Your task to perform on an android device: check the backup settings in the google photos Image 0: 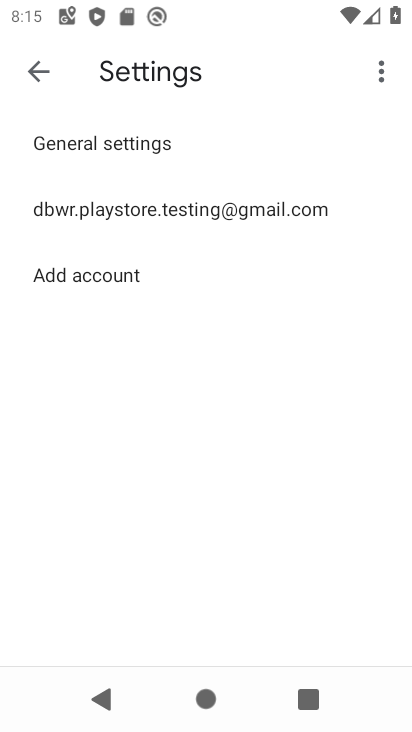
Step 0: press home button
Your task to perform on an android device: check the backup settings in the google photos Image 1: 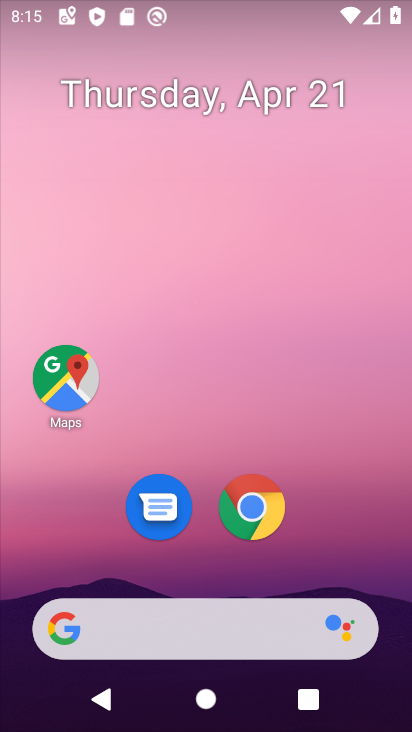
Step 1: drag from (319, 481) to (339, 127)
Your task to perform on an android device: check the backup settings in the google photos Image 2: 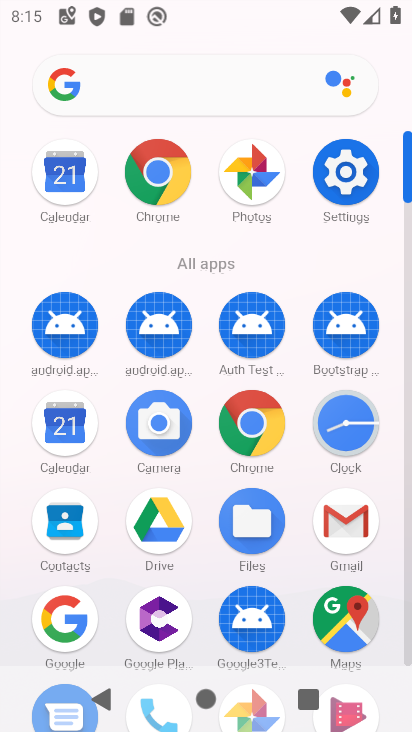
Step 2: drag from (197, 591) to (204, 185)
Your task to perform on an android device: check the backup settings in the google photos Image 3: 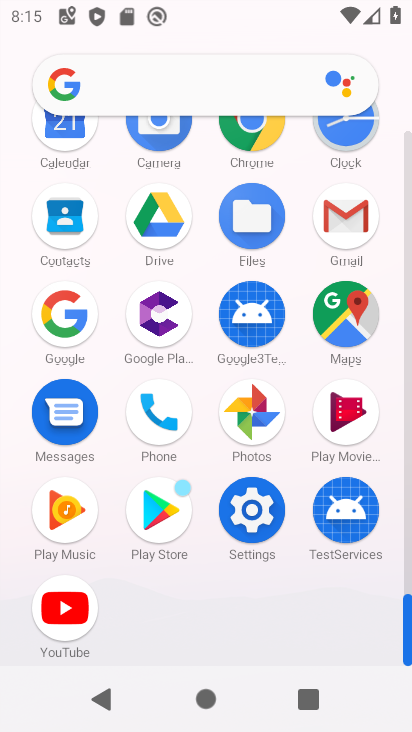
Step 3: click (241, 426)
Your task to perform on an android device: check the backup settings in the google photos Image 4: 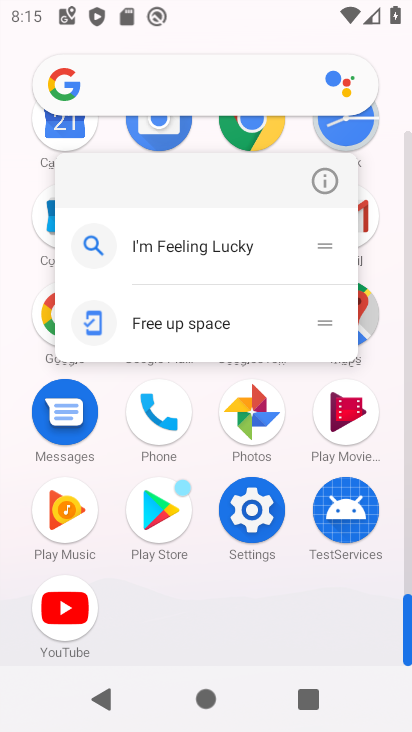
Step 4: click (255, 432)
Your task to perform on an android device: check the backup settings in the google photos Image 5: 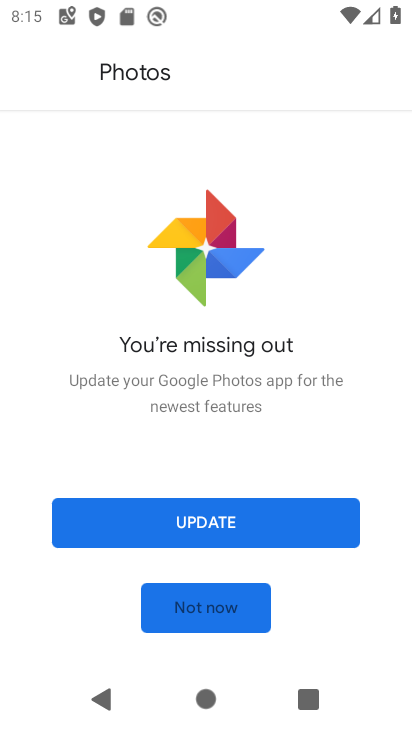
Step 5: click (256, 536)
Your task to perform on an android device: check the backup settings in the google photos Image 6: 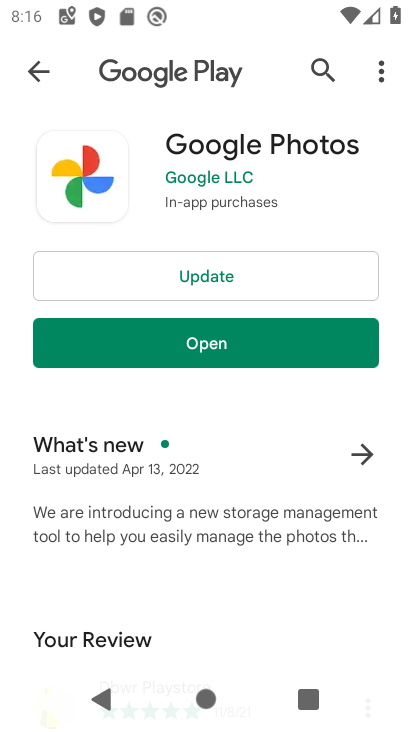
Step 6: click (198, 271)
Your task to perform on an android device: check the backup settings in the google photos Image 7: 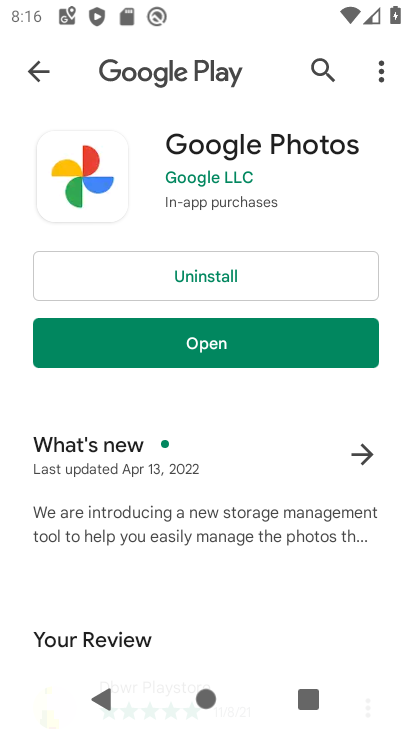
Step 7: click (193, 364)
Your task to perform on an android device: check the backup settings in the google photos Image 8: 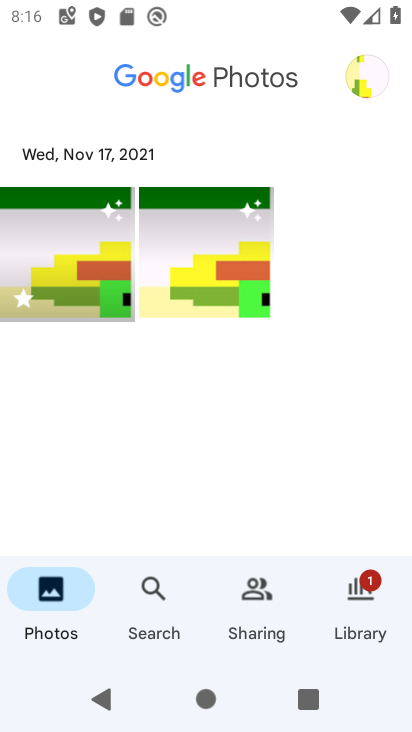
Step 8: click (367, 88)
Your task to perform on an android device: check the backup settings in the google photos Image 9: 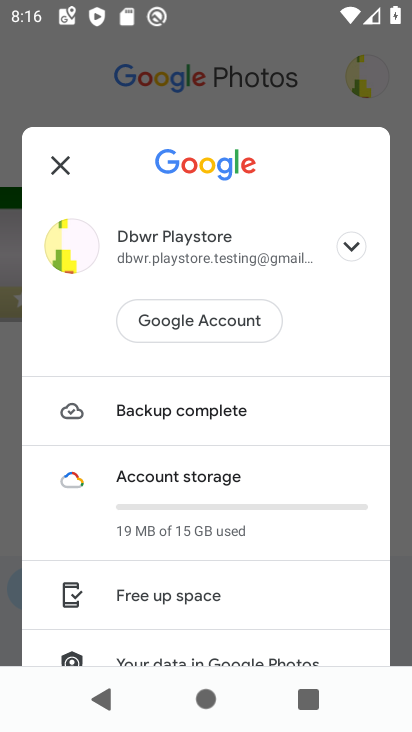
Step 9: drag from (210, 610) to (207, 297)
Your task to perform on an android device: check the backup settings in the google photos Image 10: 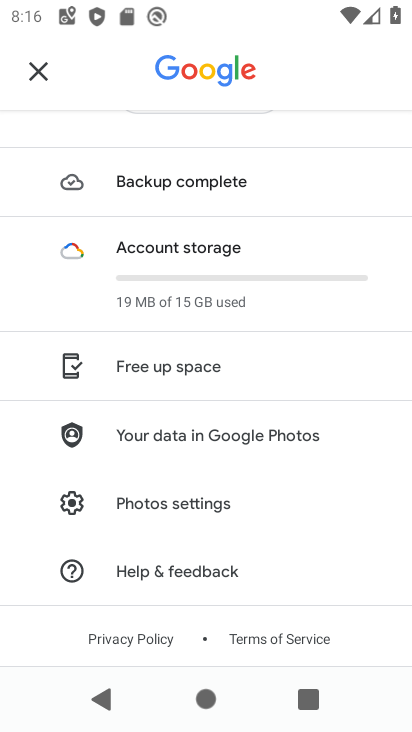
Step 10: click (161, 492)
Your task to perform on an android device: check the backup settings in the google photos Image 11: 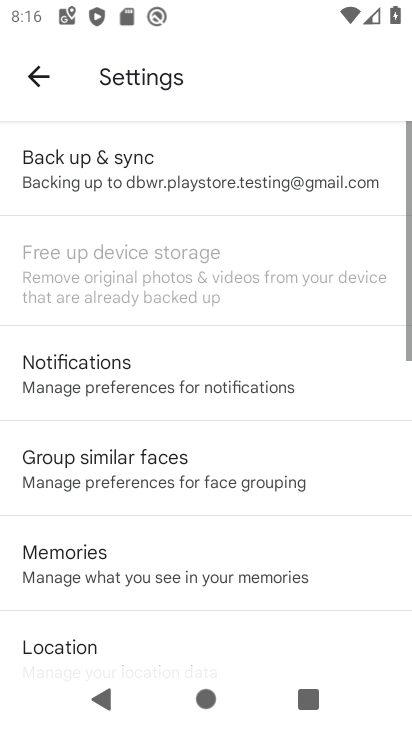
Step 11: click (131, 178)
Your task to perform on an android device: check the backup settings in the google photos Image 12: 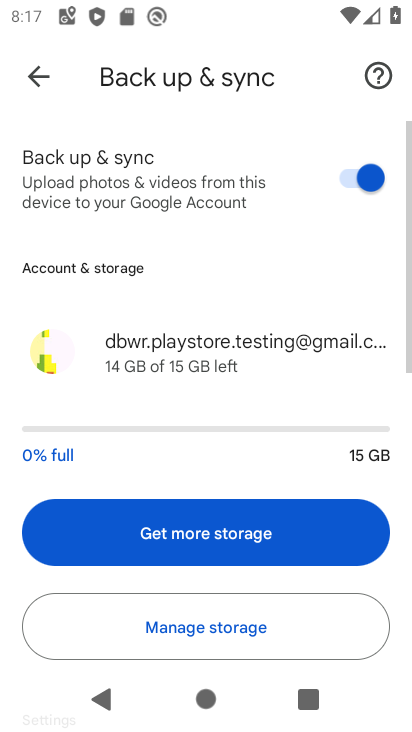
Step 12: task complete